Your task to perform on an android device: Go to Yahoo.com Image 0: 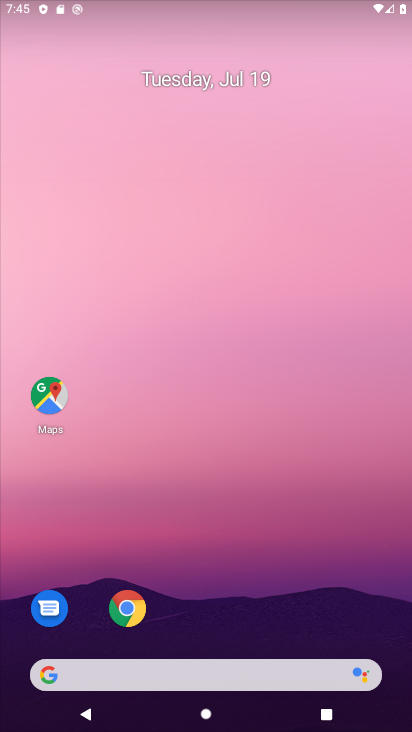
Step 0: drag from (308, 666) to (313, 3)
Your task to perform on an android device: Go to Yahoo.com Image 1: 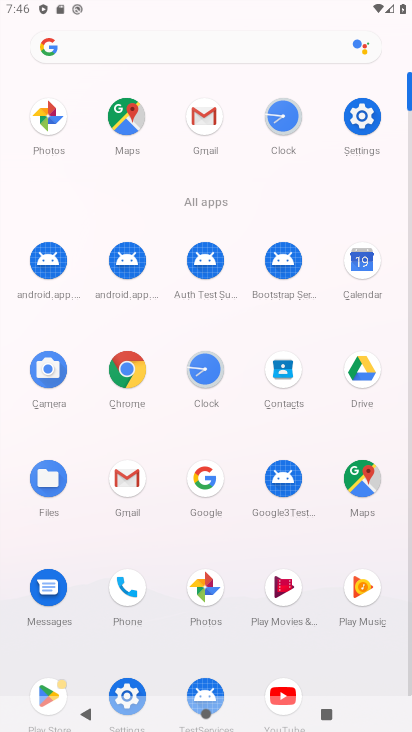
Step 1: drag from (287, 611) to (344, 255)
Your task to perform on an android device: Go to Yahoo.com Image 2: 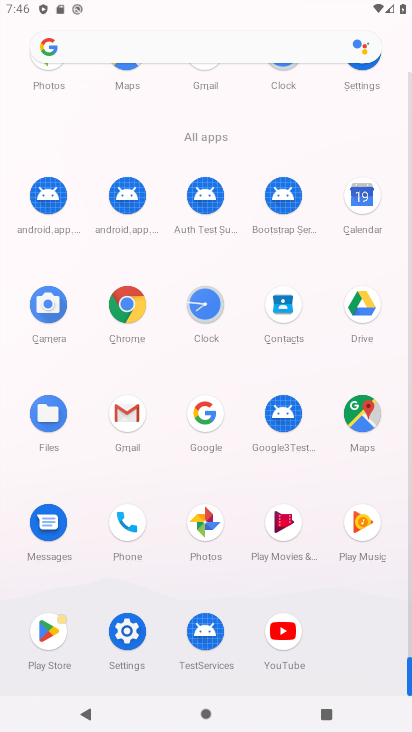
Step 2: click (126, 309)
Your task to perform on an android device: Go to Yahoo.com Image 3: 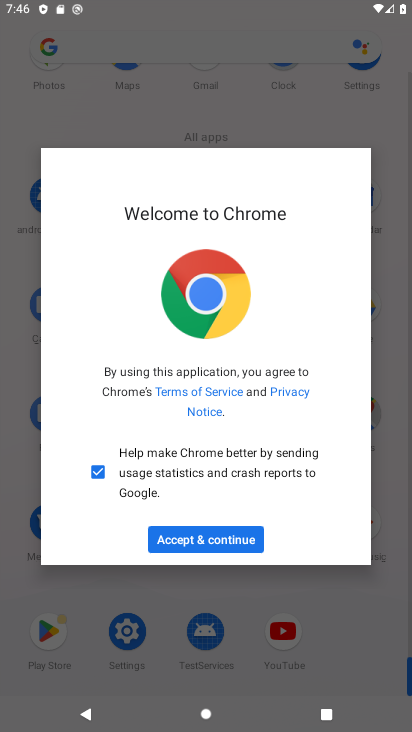
Step 3: click (199, 532)
Your task to perform on an android device: Go to Yahoo.com Image 4: 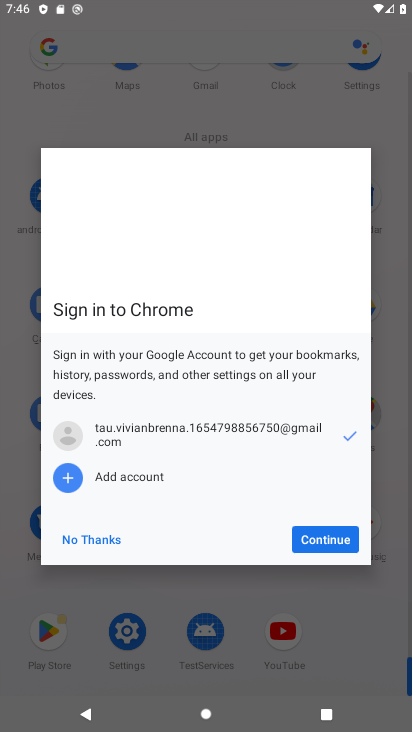
Step 4: click (315, 536)
Your task to perform on an android device: Go to Yahoo.com Image 5: 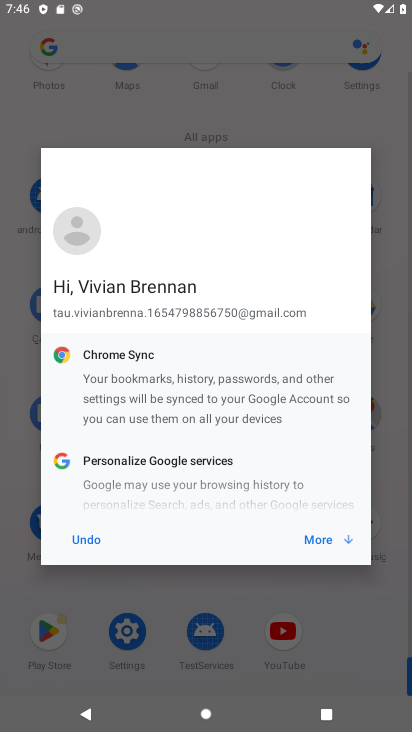
Step 5: click (315, 536)
Your task to perform on an android device: Go to Yahoo.com Image 6: 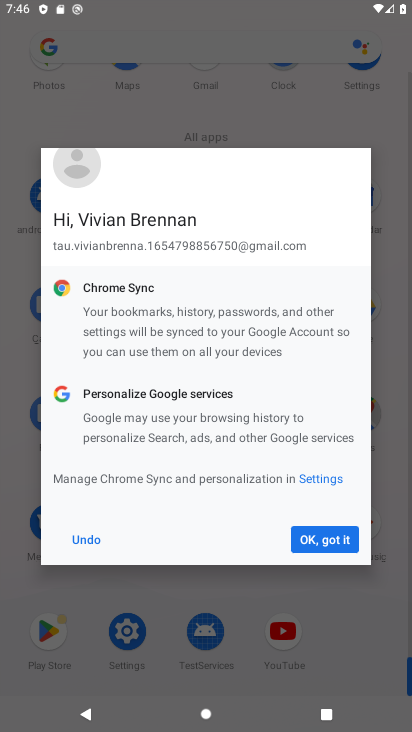
Step 6: click (317, 540)
Your task to perform on an android device: Go to Yahoo.com Image 7: 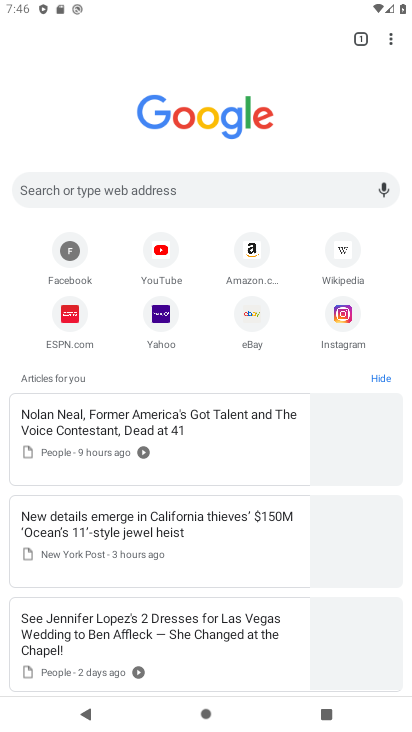
Step 7: click (165, 325)
Your task to perform on an android device: Go to Yahoo.com Image 8: 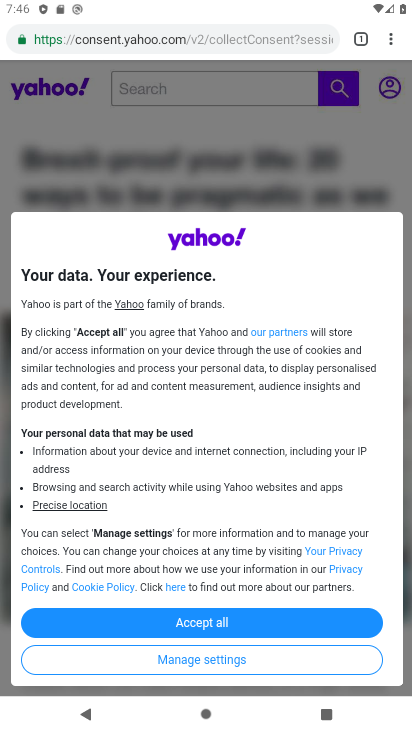
Step 8: click (277, 623)
Your task to perform on an android device: Go to Yahoo.com Image 9: 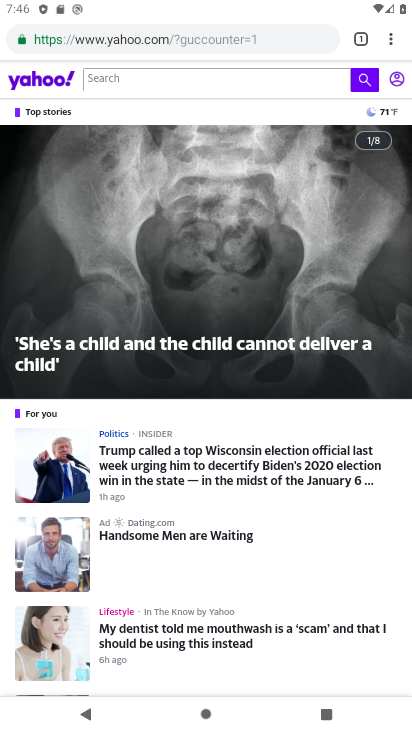
Step 9: task complete